Your task to perform on an android device: move an email to a new category in the gmail app Image 0: 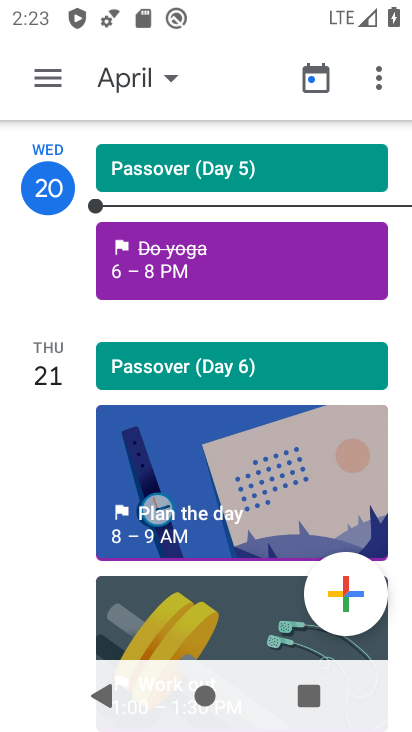
Step 0: press back button
Your task to perform on an android device: move an email to a new category in the gmail app Image 1: 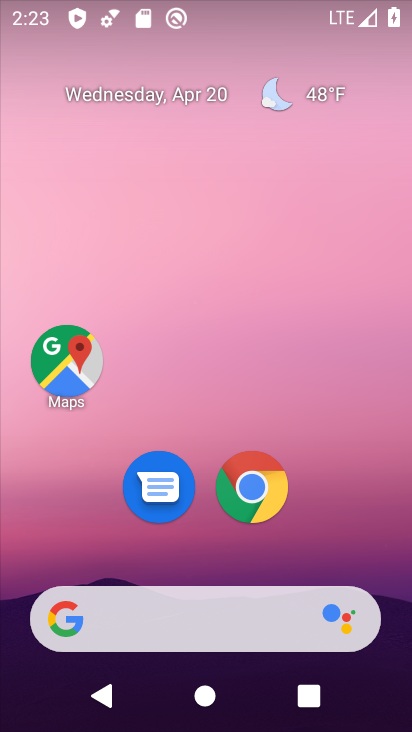
Step 1: drag from (179, 564) to (173, 214)
Your task to perform on an android device: move an email to a new category in the gmail app Image 2: 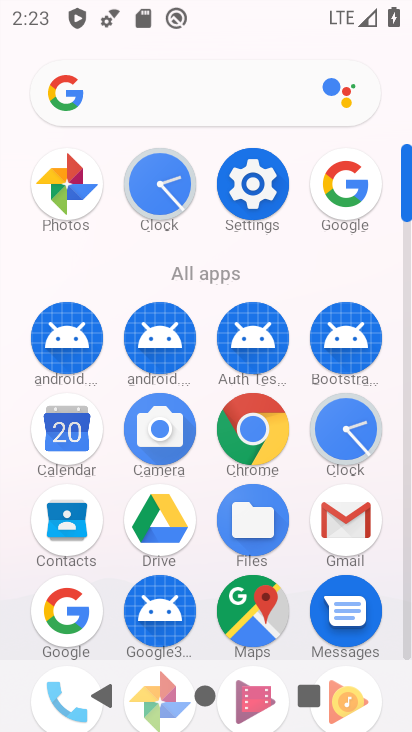
Step 2: click (338, 522)
Your task to perform on an android device: move an email to a new category in the gmail app Image 3: 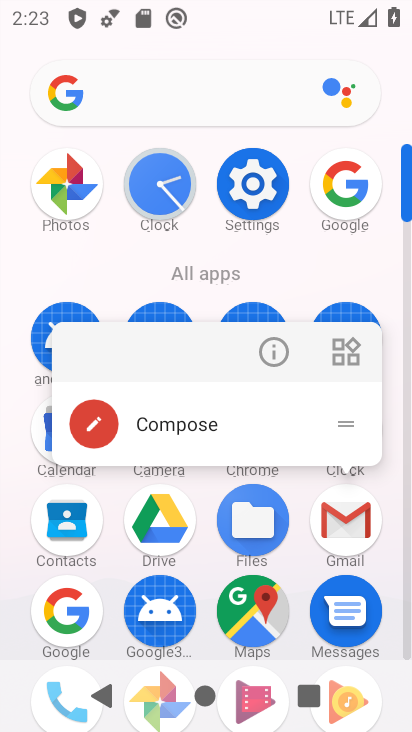
Step 3: click (350, 523)
Your task to perform on an android device: move an email to a new category in the gmail app Image 4: 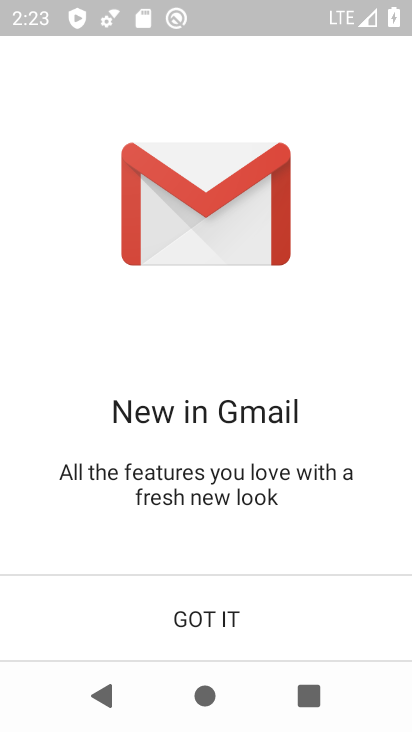
Step 4: click (215, 627)
Your task to perform on an android device: move an email to a new category in the gmail app Image 5: 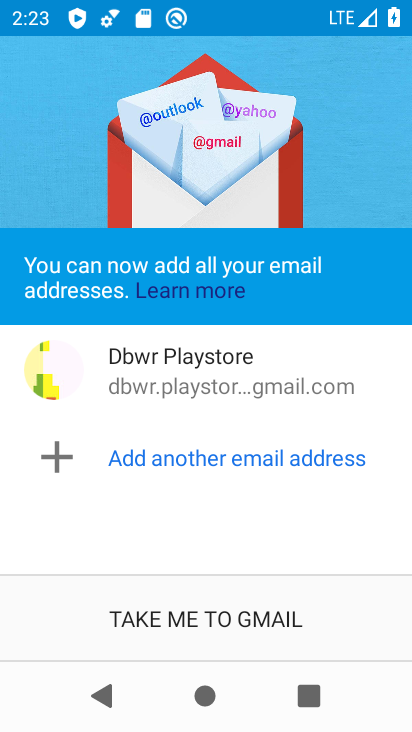
Step 5: click (209, 612)
Your task to perform on an android device: move an email to a new category in the gmail app Image 6: 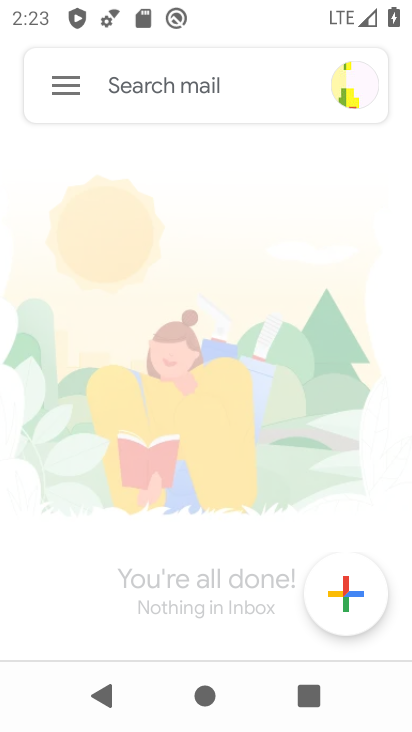
Step 6: click (75, 84)
Your task to perform on an android device: move an email to a new category in the gmail app Image 7: 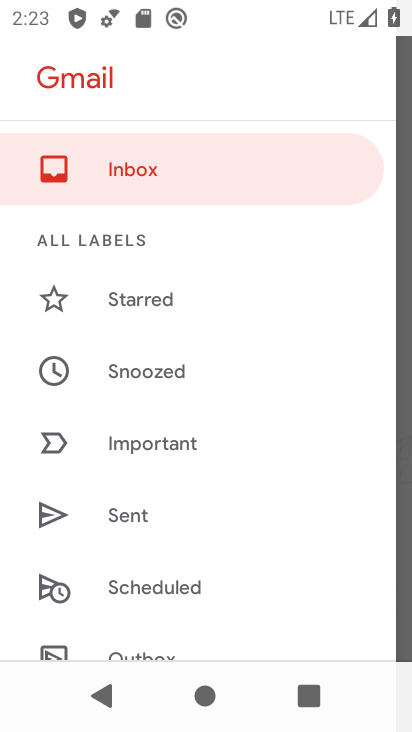
Step 7: click (132, 166)
Your task to perform on an android device: move an email to a new category in the gmail app Image 8: 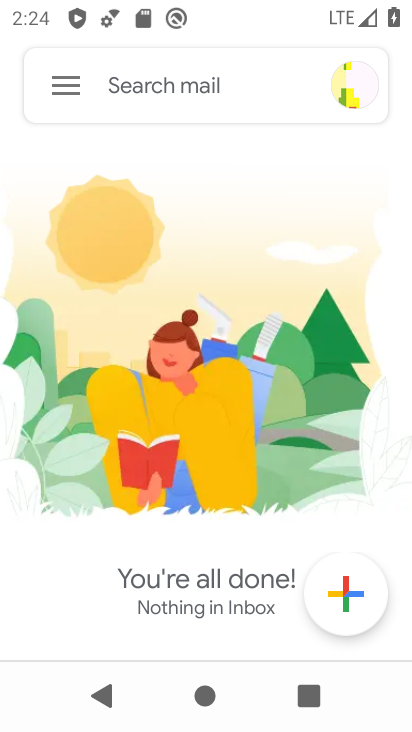
Step 8: task complete